Your task to perform on an android device: check google app version Image 0: 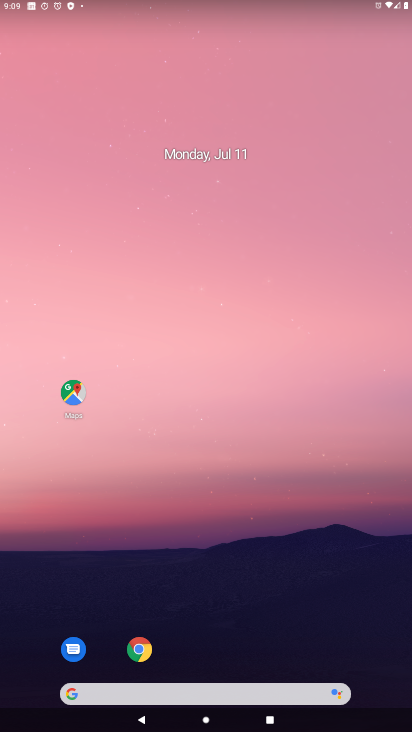
Step 0: drag from (235, 705) to (215, 69)
Your task to perform on an android device: check google app version Image 1: 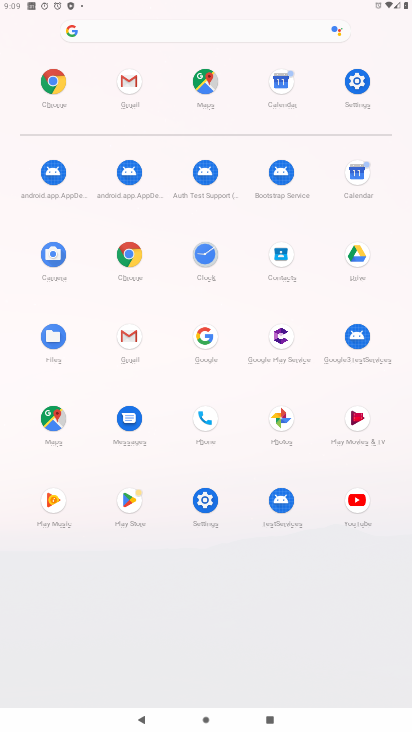
Step 1: click (203, 337)
Your task to perform on an android device: check google app version Image 2: 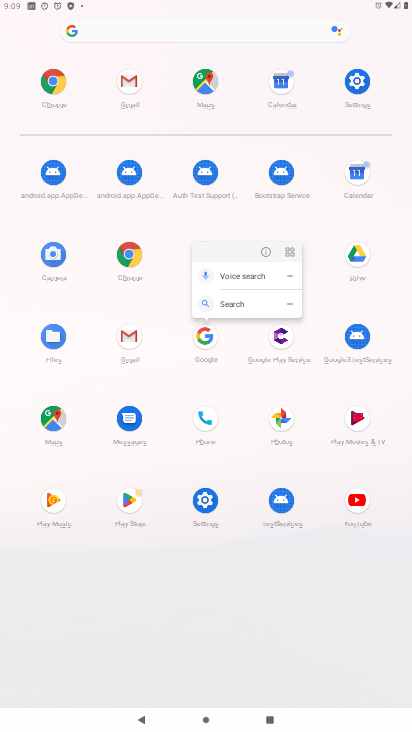
Step 2: click (265, 255)
Your task to perform on an android device: check google app version Image 3: 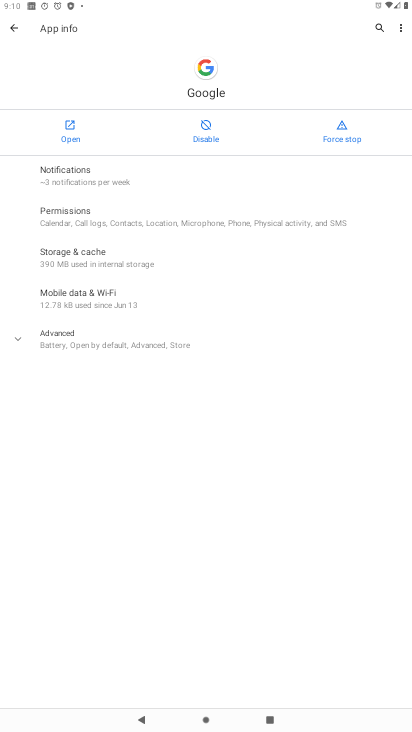
Step 3: click (43, 339)
Your task to perform on an android device: check google app version Image 4: 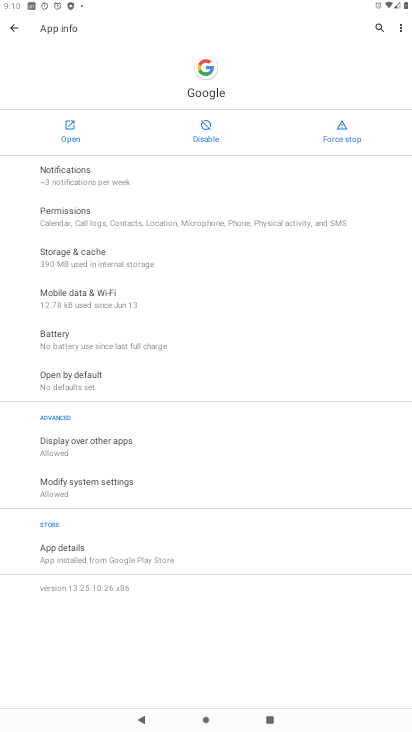
Step 4: click (104, 582)
Your task to perform on an android device: check google app version Image 5: 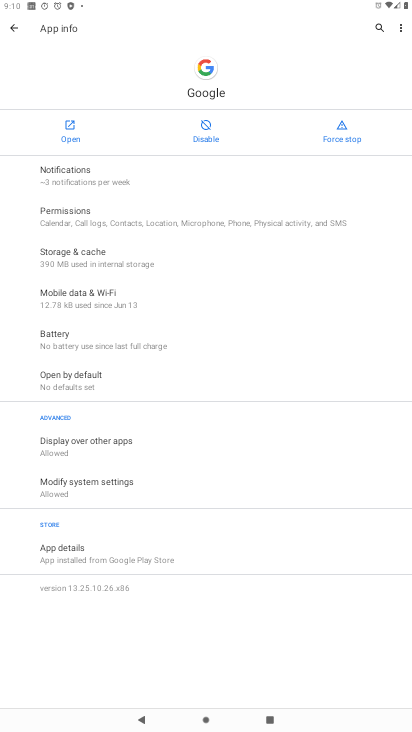
Step 5: task complete